Your task to perform on an android device: change the upload size in google photos Image 0: 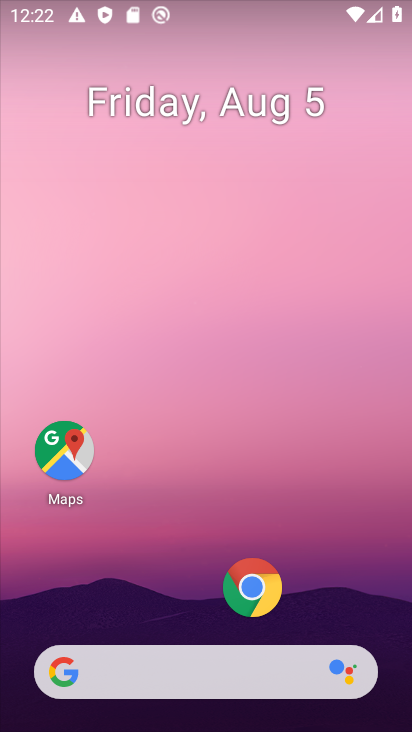
Step 0: drag from (200, 699) to (149, 80)
Your task to perform on an android device: change the upload size in google photos Image 1: 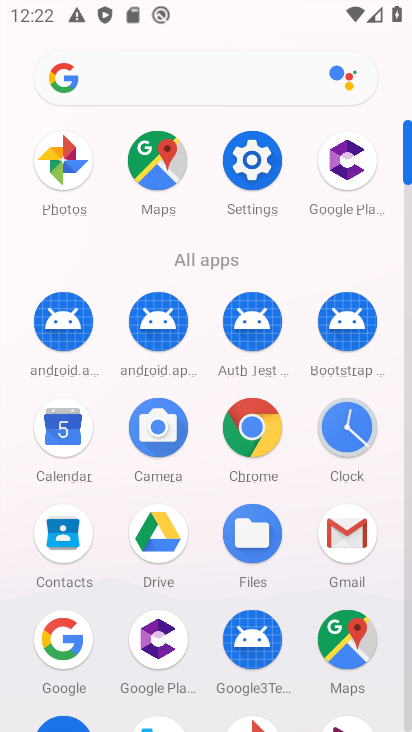
Step 1: click (47, 170)
Your task to perform on an android device: change the upload size in google photos Image 2: 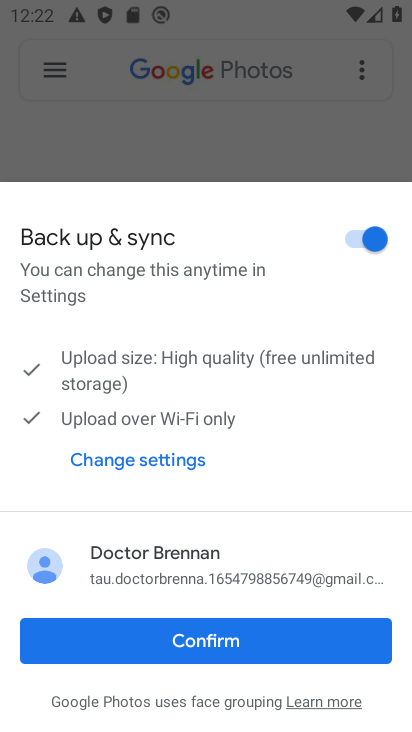
Step 2: click (284, 656)
Your task to perform on an android device: change the upload size in google photos Image 3: 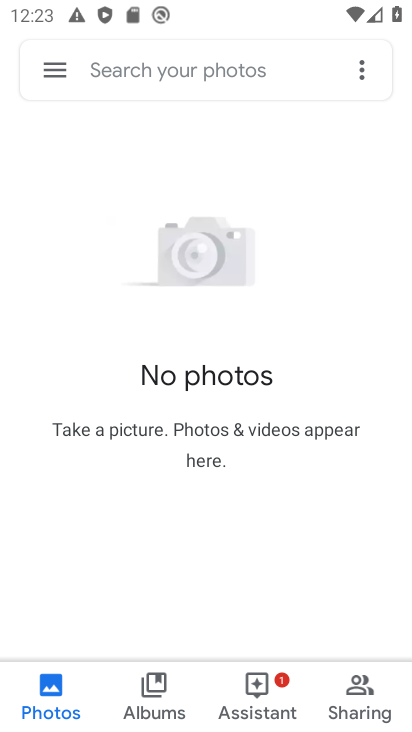
Step 3: click (56, 65)
Your task to perform on an android device: change the upload size in google photos Image 4: 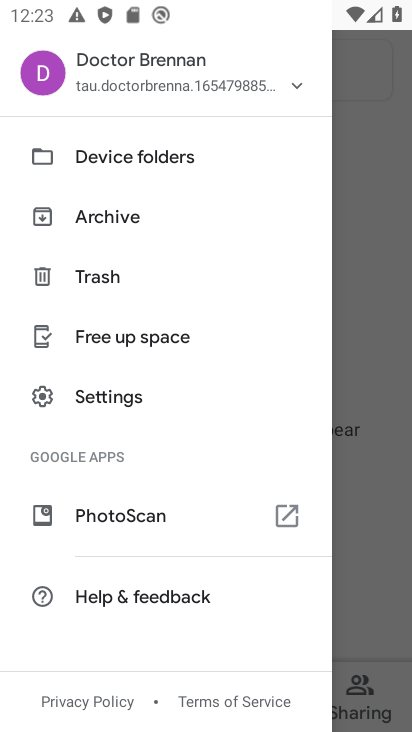
Step 4: click (129, 387)
Your task to perform on an android device: change the upload size in google photos Image 5: 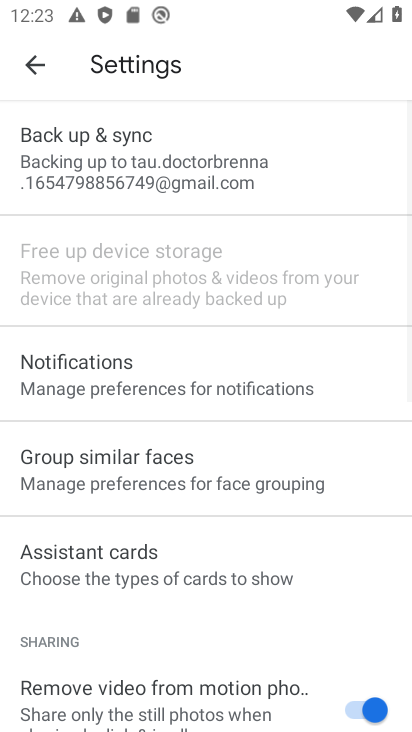
Step 5: click (153, 171)
Your task to perform on an android device: change the upload size in google photos Image 6: 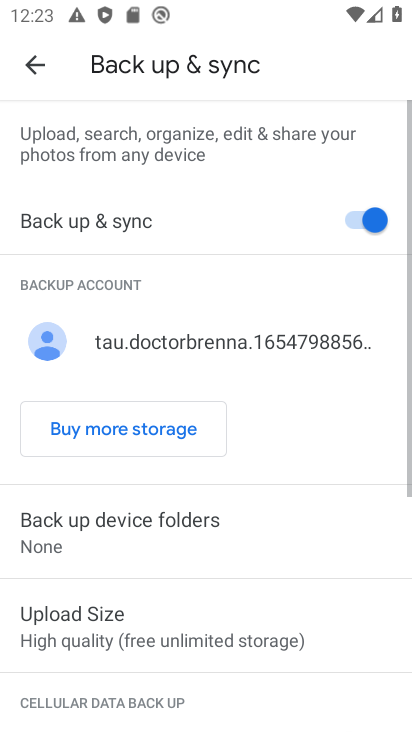
Step 6: click (216, 631)
Your task to perform on an android device: change the upload size in google photos Image 7: 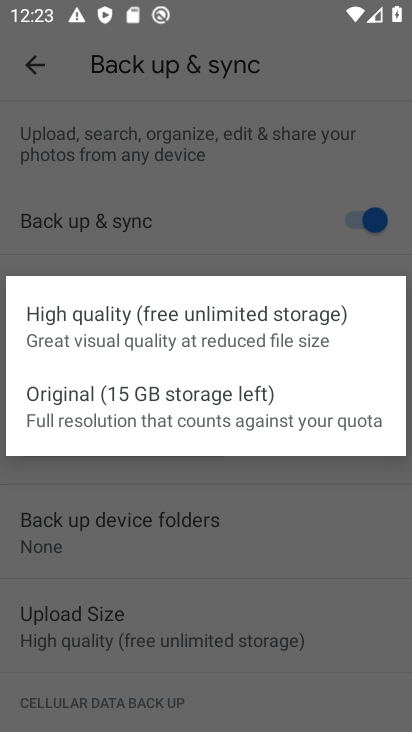
Step 7: click (192, 402)
Your task to perform on an android device: change the upload size in google photos Image 8: 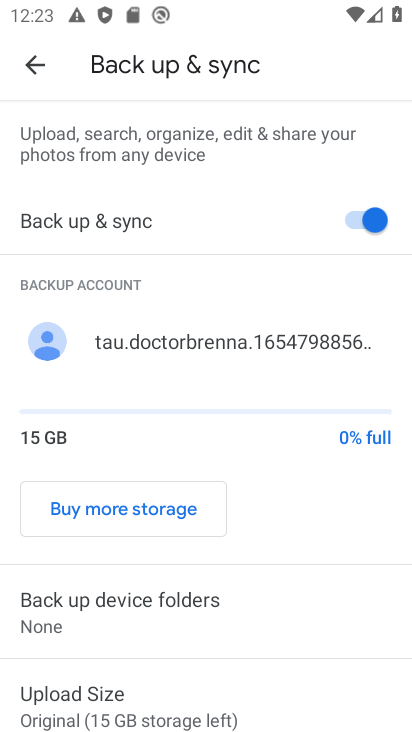
Step 8: task complete